Your task to perform on an android device: make emails show in primary in the gmail app Image 0: 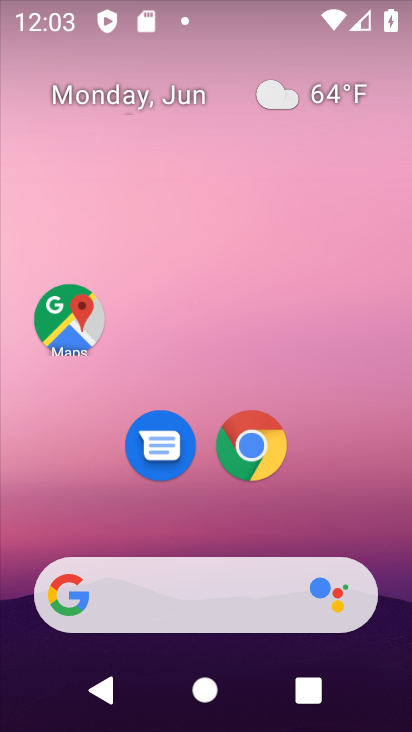
Step 0: drag from (298, 602) to (338, 19)
Your task to perform on an android device: make emails show in primary in the gmail app Image 1: 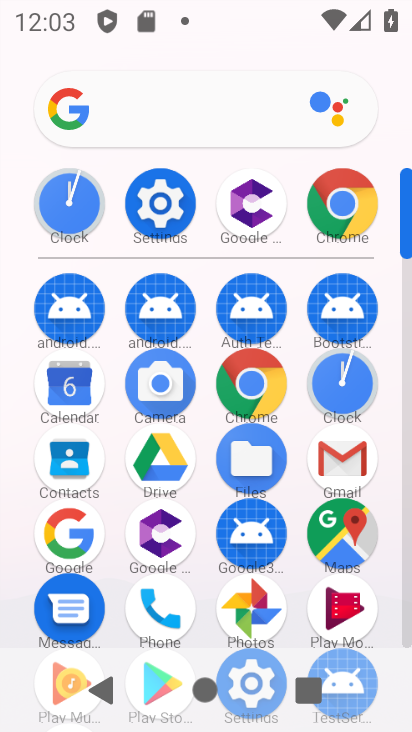
Step 1: click (367, 434)
Your task to perform on an android device: make emails show in primary in the gmail app Image 2: 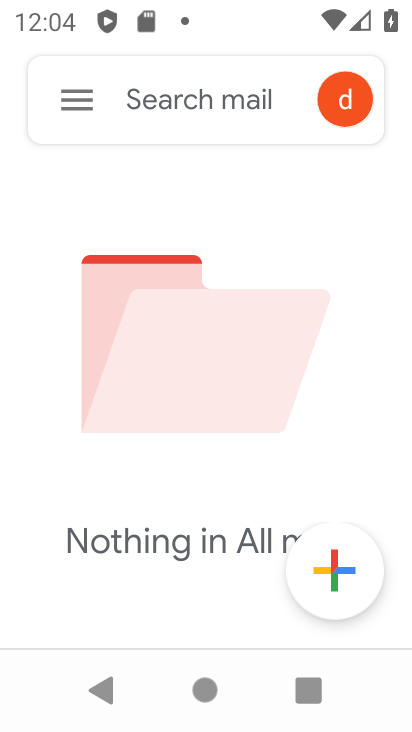
Step 2: click (78, 101)
Your task to perform on an android device: make emails show in primary in the gmail app Image 3: 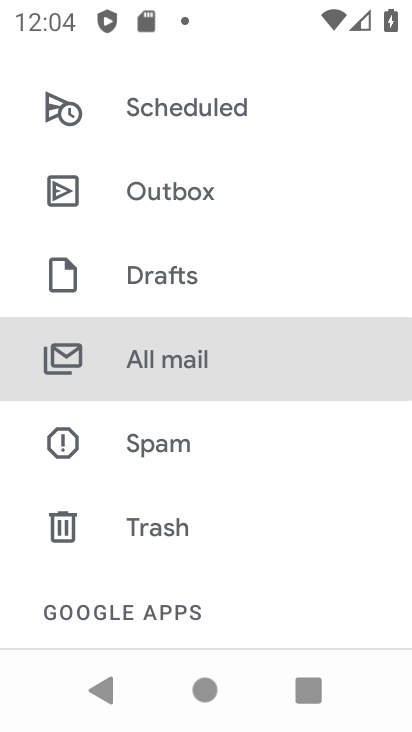
Step 3: press home button
Your task to perform on an android device: make emails show in primary in the gmail app Image 4: 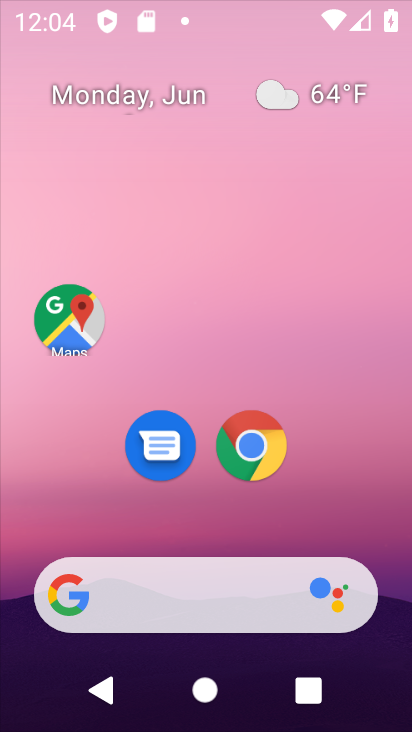
Step 4: drag from (273, 652) to (307, 88)
Your task to perform on an android device: make emails show in primary in the gmail app Image 5: 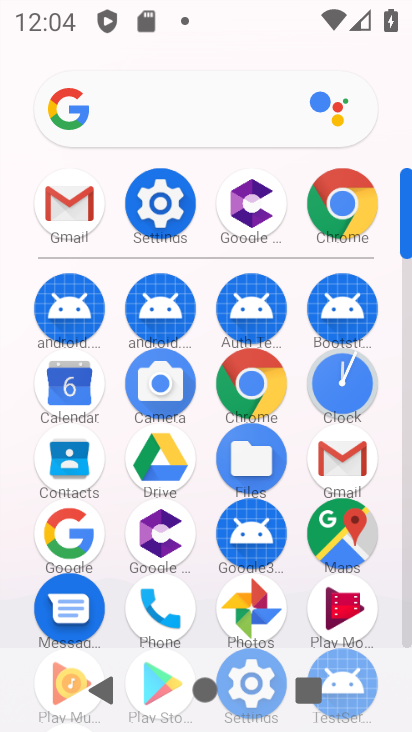
Step 5: click (341, 466)
Your task to perform on an android device: make emails show in primary in the gmail app Image 6: 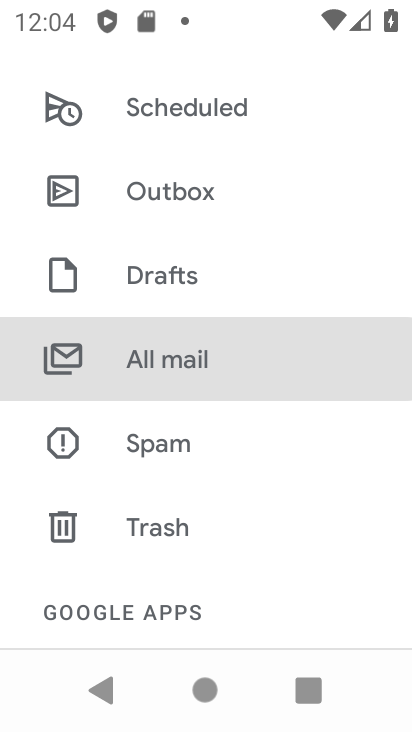
Step 6: drag from (248, 633) to (304, 65)
Your task to perform on an android device: make emails show in primary in the gmail app Image 7: 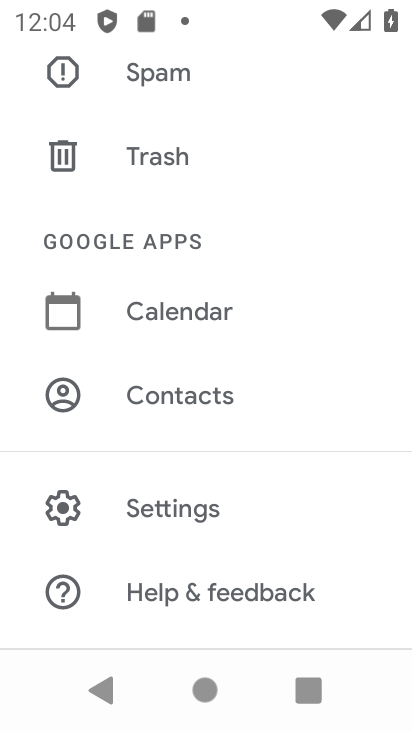
Step 7: drag from (289, 206) to (303, 657)
Your task to perform on an android device: make emails show in primary in the gmail app Image 8: 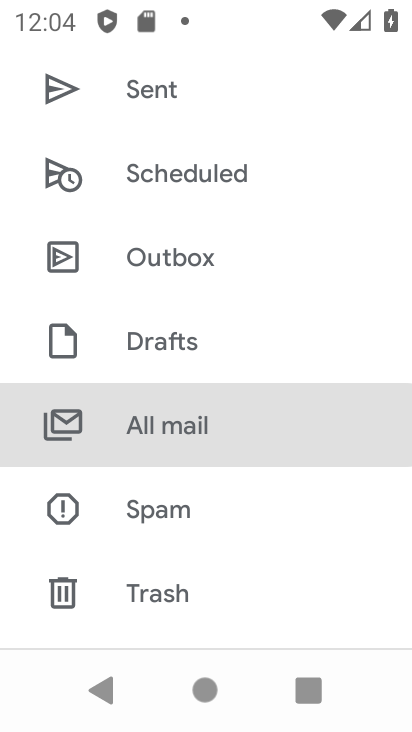
Step 8: drag from (302, 251) to (326, 399)
Your task to perform on an android device: make emails show in primary in the gmail app Image 9: 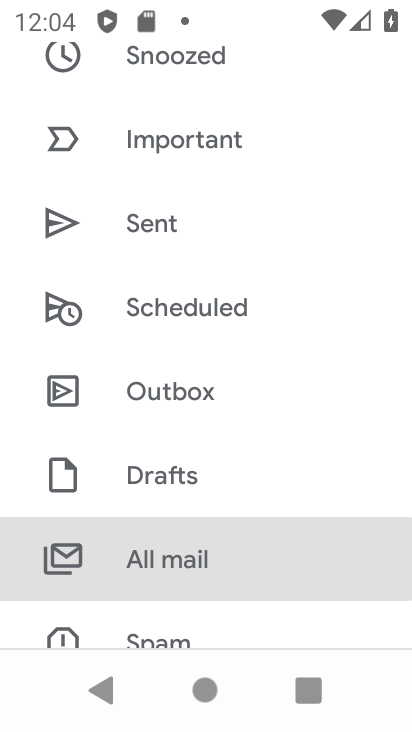
Step 9: drag from (238, 250) to (229, 545)
Your task to perform on an android device: make emails show in primary in the gmail app Image 10: 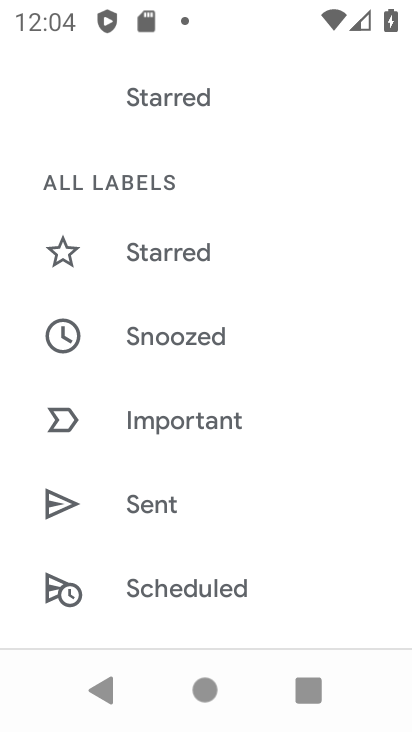
Step 10: drag from (236, 298) to (297, 627)
Your task to perform on an android device: make emails show in primary in the gmail app Image 11: 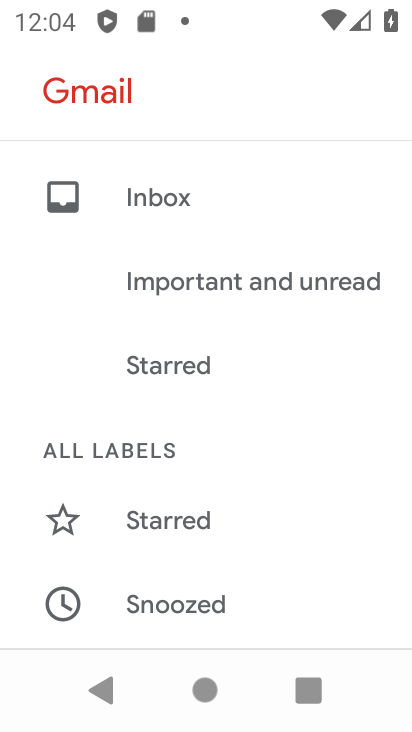
Step 11: drag from (280, 551) to (265, 21)
Your task to perform on an android device: make emails show in primary in the gmail app Image 12: 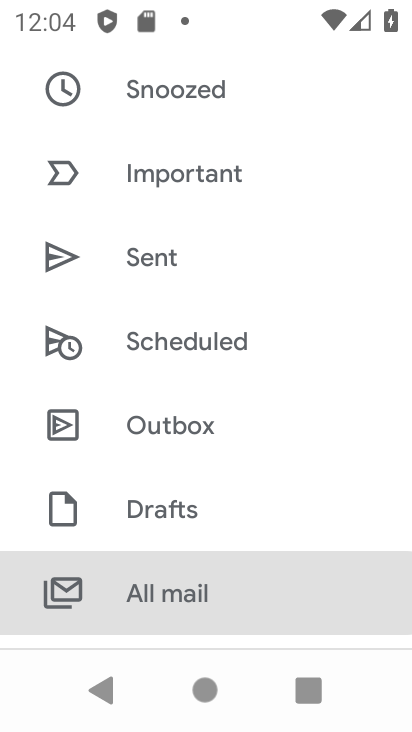
Step 12: drag from (270, 491) to (244, 0)
Your task to perform on an android device: make emails show in primary in the gmail app Image 13: 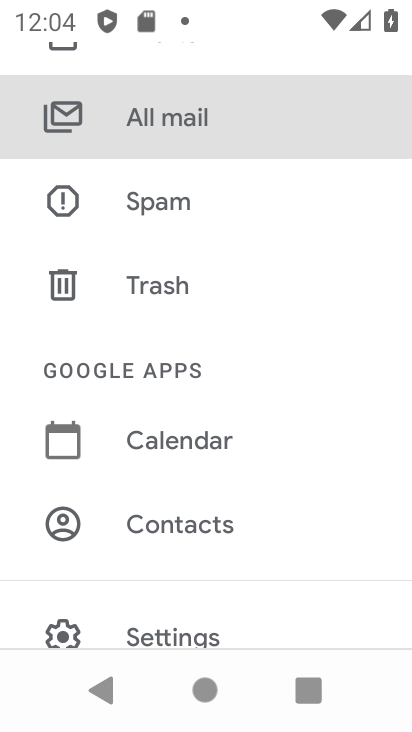
Step 13: click (255, 634)
Your task to perform on an android device: make emails show in primary in the gmail app Image 14: 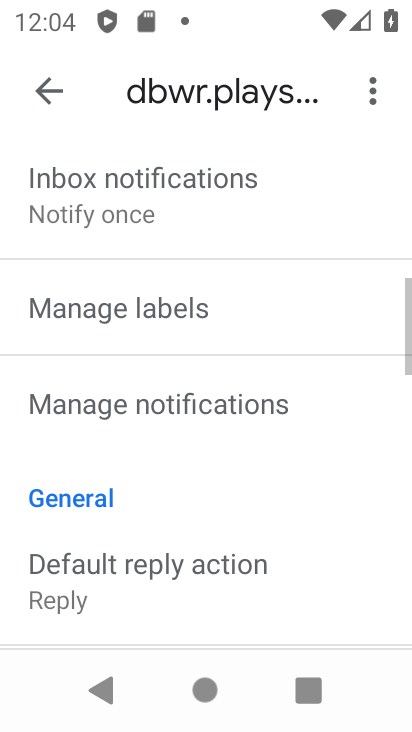
Step 14: drag from (216, 233) to (259, 528)
Your task to perform on an android device: make emails show in primary in the gmail app Image 15: 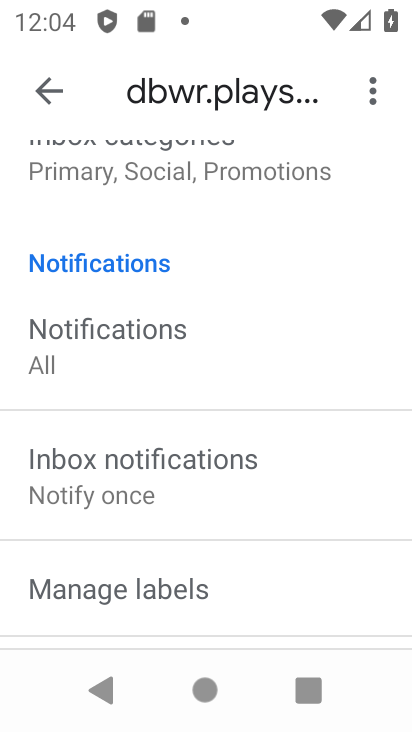
Step 15: drag from (248, 184) to (269, 579)
Your task to perform on an android device: make emails show in primary in the gmail app Image 16: 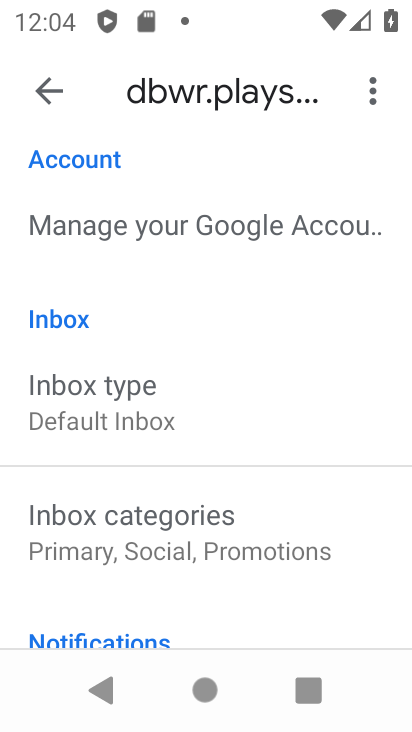
Step 16: click (176, 415)
Your task to perform on an android device: make emails show in primary in the gmail app Image 17: 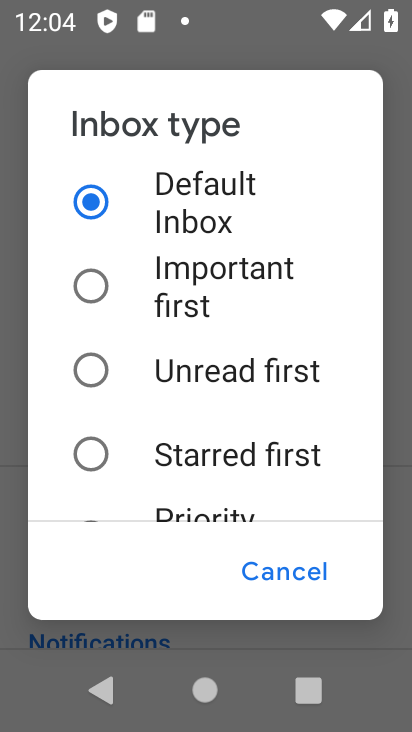
Step 17: task complete